Your task to perform on an android device: move a message to another label in the gmail app Image 0: 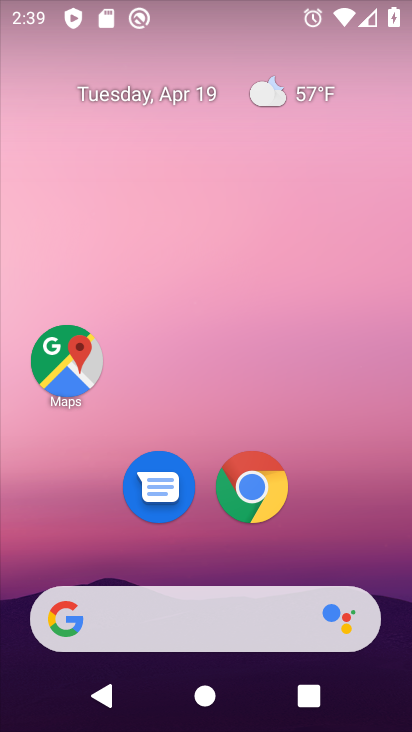
Step 0: drag from (366, 534) to (332, 70)
Your task to perform on an android device: move a message to another label in the gmail app Image 1: 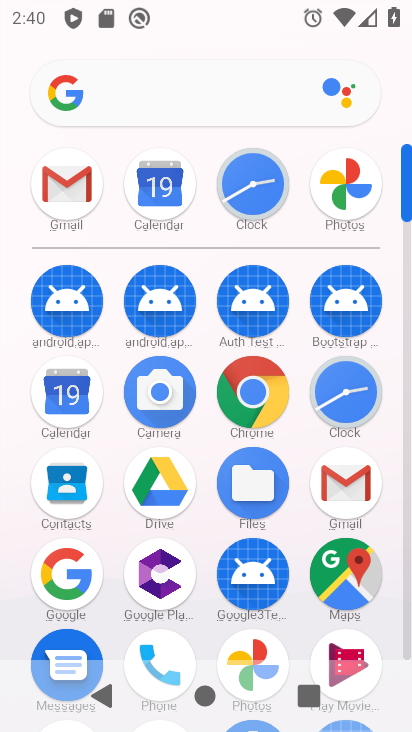
Step 1: click (358, 482)
Your task to perform on an android device: move a message to another label in the gmail app Image 2: 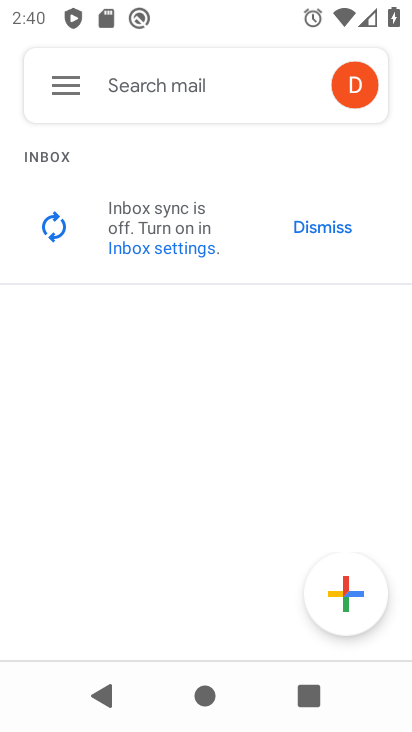
Step 2: click (72, 87)
Your task to perform on an android device: move a message to another label in the gmail app Image 3: 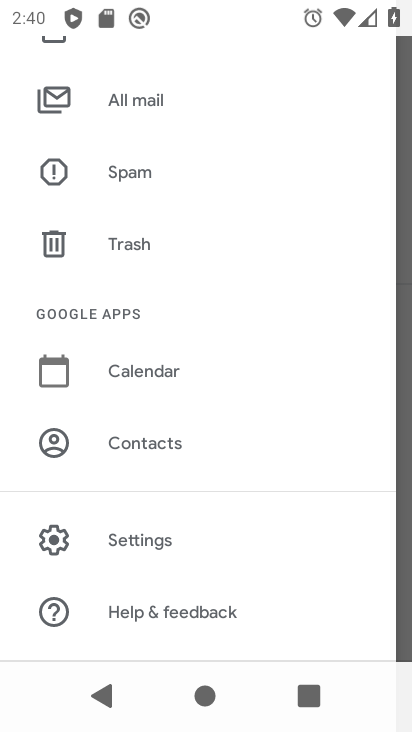
Step 3: click (161, 100)
Your task to perform on an android device: move a message to another label in the gmail app Image 4: 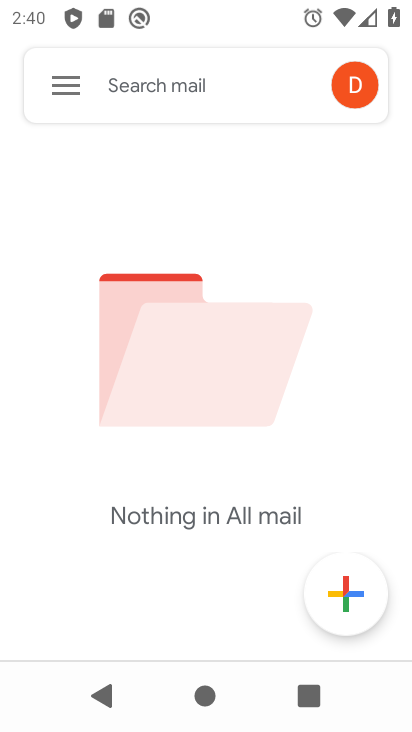
Step 4: task complete